Your task to perform on an android device: turn on showing notifications on the lock screen Image 0: 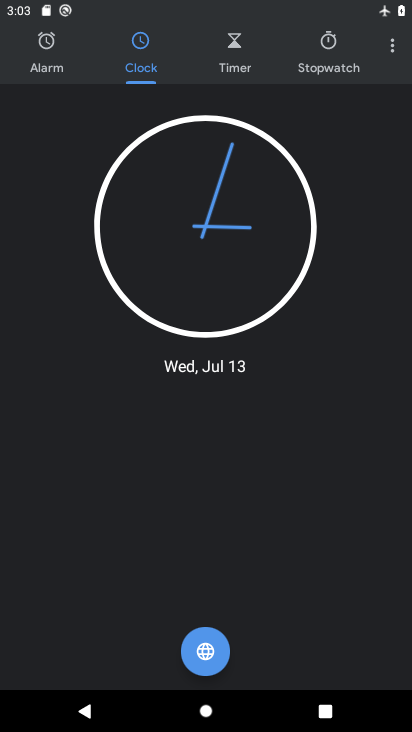
Step 0: press home button
Your task to perform on an android device: turn on showing notifications on the lock screen Image 1: 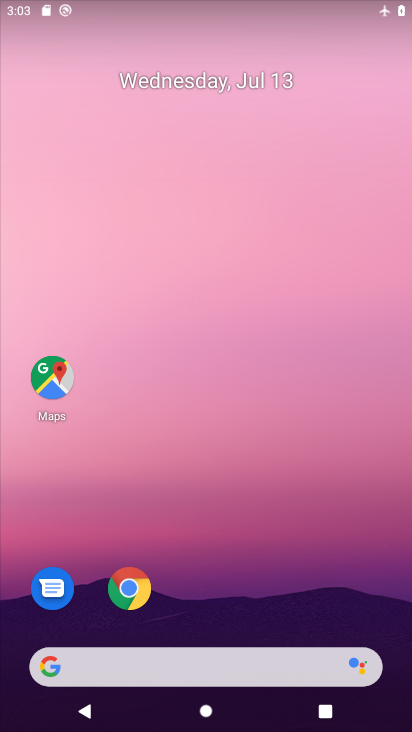
Step 1: drag from (204, 606) to (178, 123)
Your task to perform on an android device: turn on showing notifications on the lock screen Image 2: 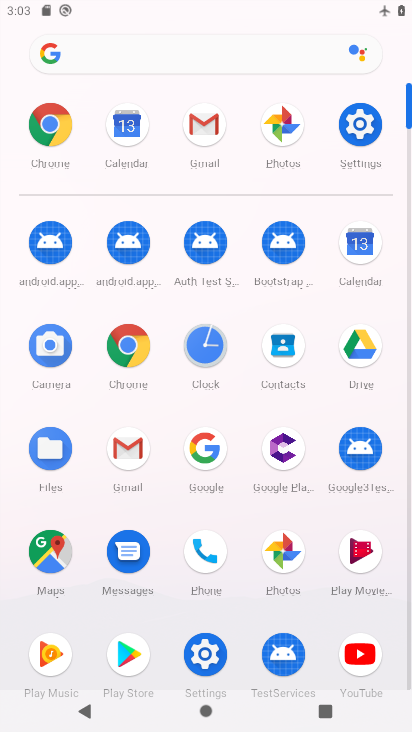
Step 2: click (350, 122)
Your task to perform on an android device: turn on showing notifications on the lock screen Image 3: 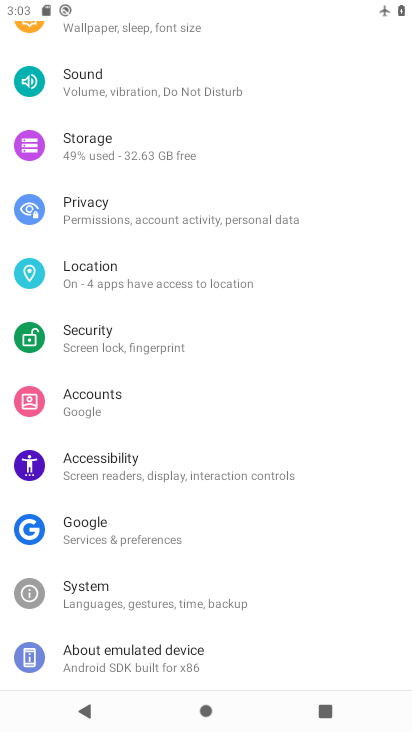
Step 3: drag from (139, 238) to (95, 506)
Your task to perform on an android device: turn on showing notifications on the lock screen Image 4: 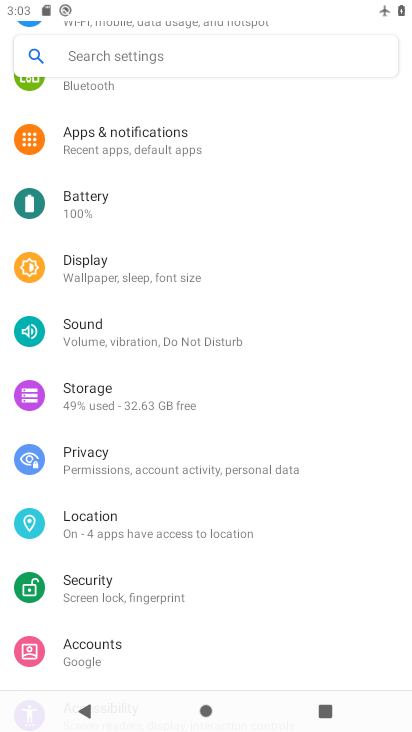
Step 4: click (112, 155)
Your task to perform on an android device: turn on showing notifications on the lock screen Image 5: 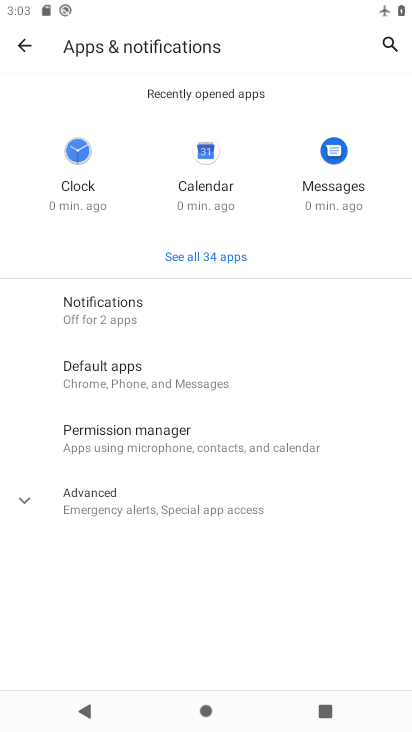
Step 5: click (102, 305)
Your task to perform on an android device: turn on showing notifications on the lock screen Image 6: 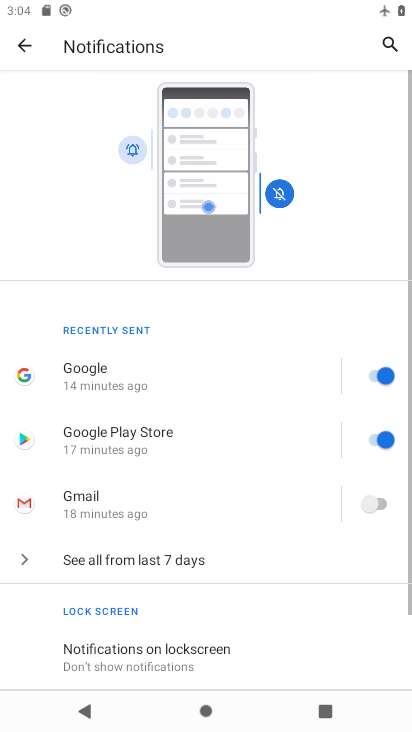
Step 6: click (163, 650)
Your task to perform on an android device: turn on showing notifications on the lock screen Image 7: 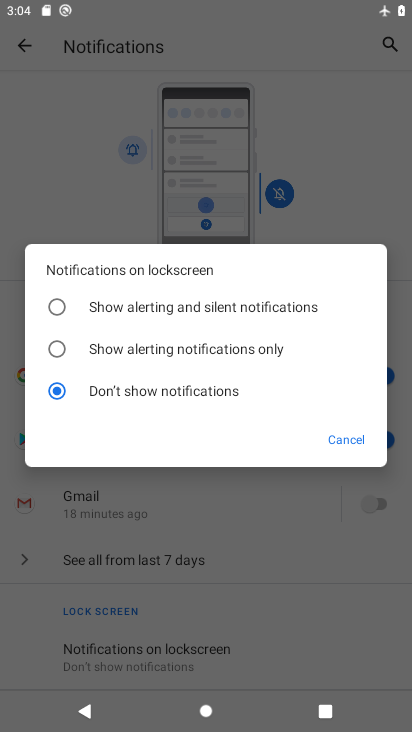
Step 7: click (155, 314)
Your task to perform on an android device: turn on showing notifications on the lock screen Image 8: 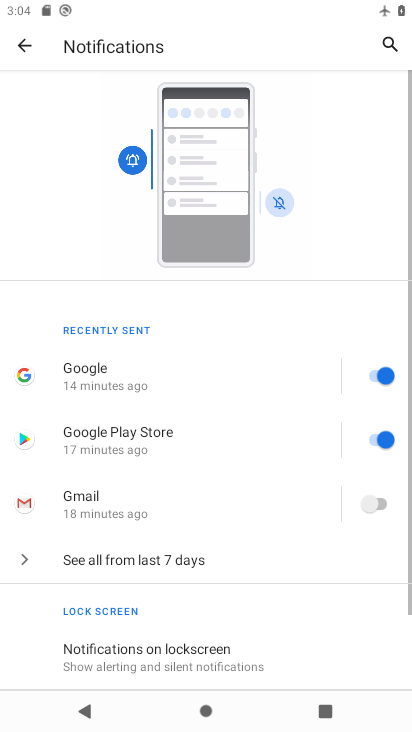
Step 8: task complete